Your task to perform on an android device: turn on data saver in the chrome app Image 0: 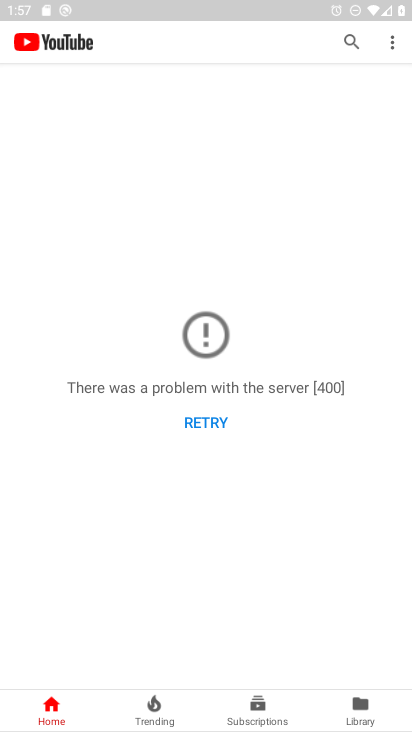
Step 0: press home button
Your task to perform on an android device: turn on data saver in the chrome app Image 1: 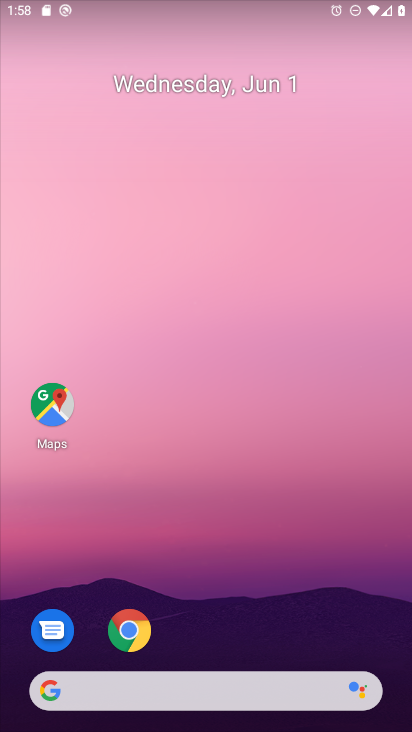
Step 1: drag from (216, 564) to (283, 27)
Your task to perform on an android device: turn on data saver in the chrome app Image 2: 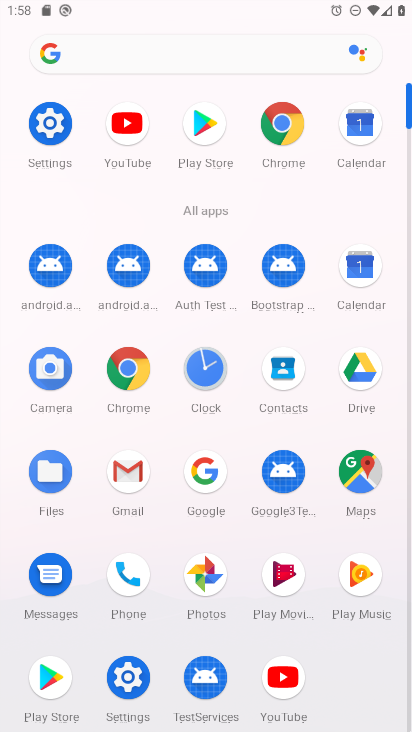
Step 2: click (129, 376)
Your task to perform on an android device: turn on data saver in the chrome app Image 3: 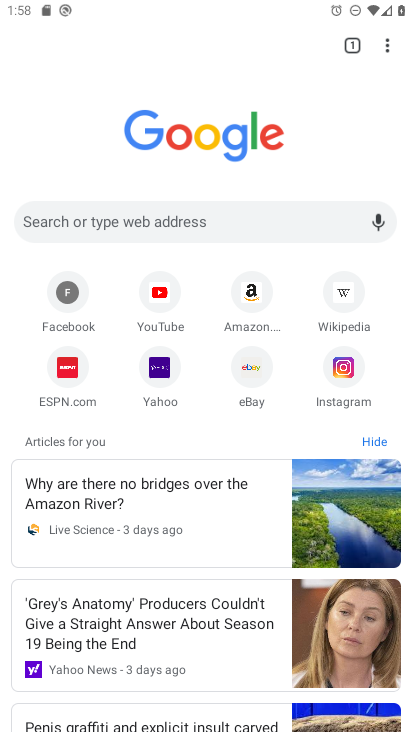
Step 3: drag from (391, 46) to (243, 386)
Your task to perform on an android device: turn on data saver in the chrome app Image 4: 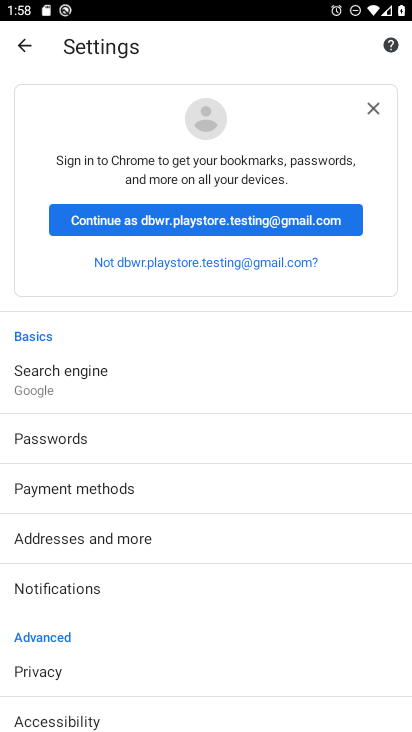
Step 4: drag from (152, 710) to (192, 270)
Your task to perform on an android device: turn on data saver in the chrome app Image 5: 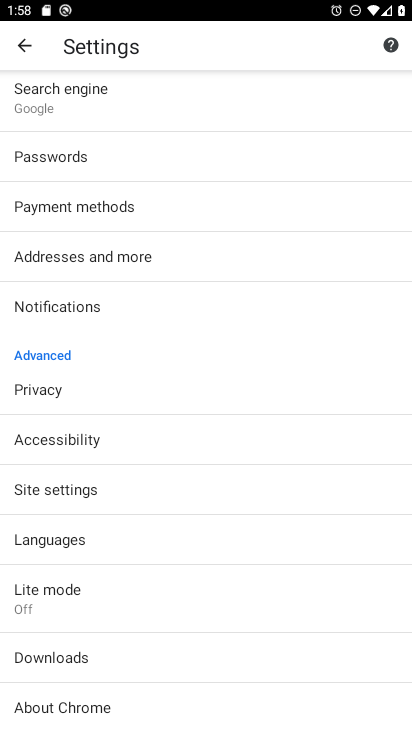
Step 5: click (58, 590)
Your task to perform on an android device: turn on data saver in the chrome app Image 6: 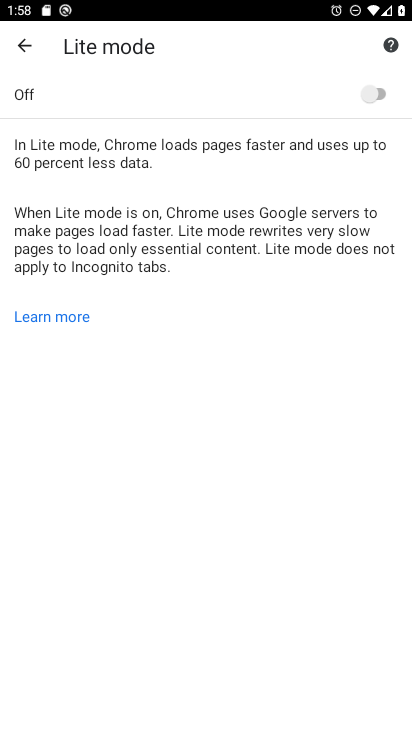
Step 6: click (367, 93)
Your task to perform on an android device: turn on data saver in the chrome app Image 7: 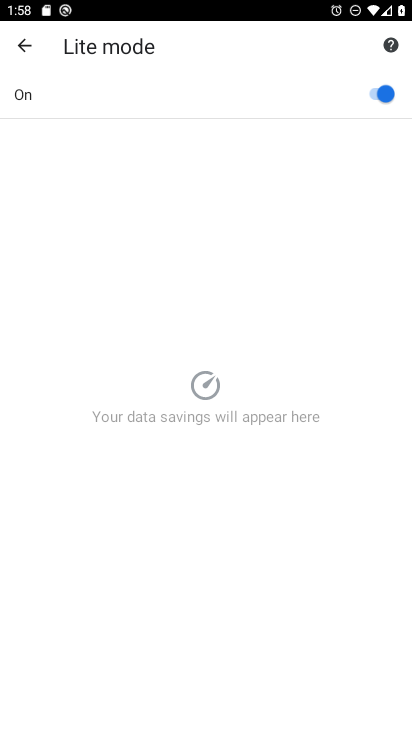
Step 7: task complete